Your task to perform on an android device: turn on data saver in the chrome app Image 0: 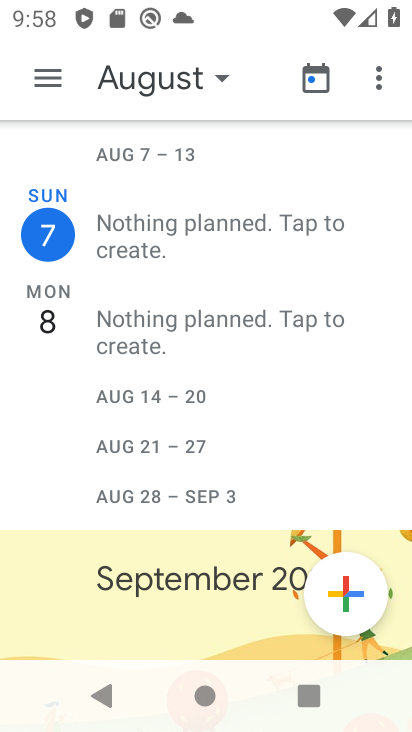
Step 0: press home button
Your task to perform on an android device: turn on data saver in the chrome app Image 1: 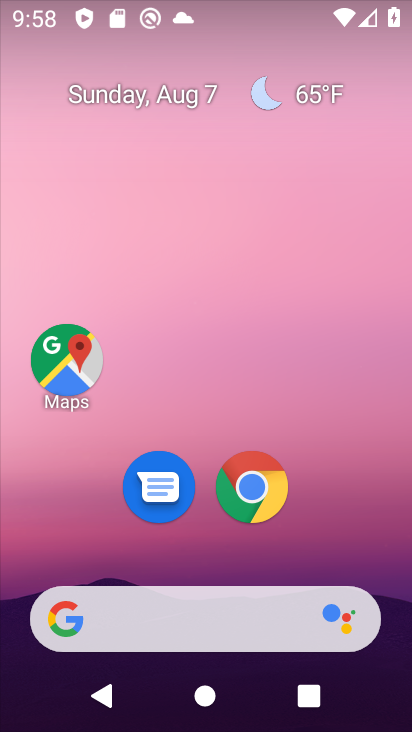
Step 1: click (238, 490)
Your task to perform on an android device: turn on data saver in the chrome app Image 2: 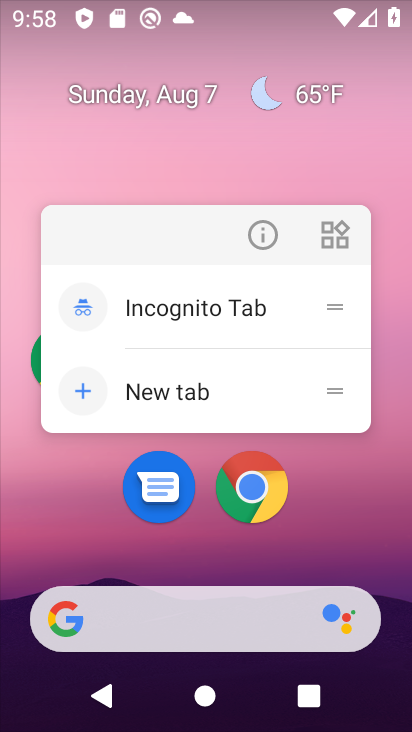
Step 2: click (263, 492)
Your task to perform on an android device: turn on data saver in the chrome app Image 3: 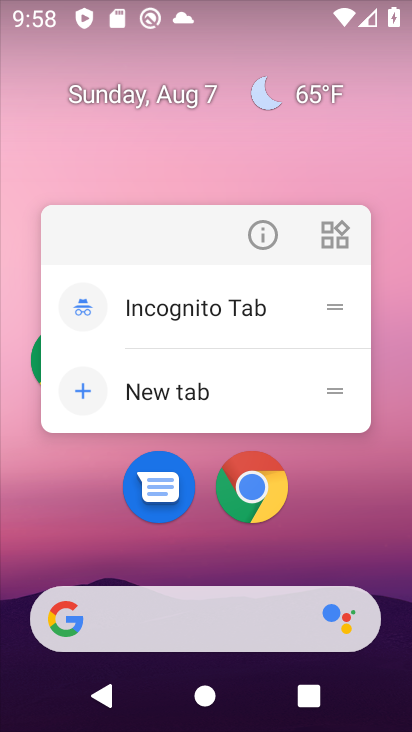
Step 3: click (262, 478)
Your task to perform on an android device: turn on data saver in the chrome app Image 4: 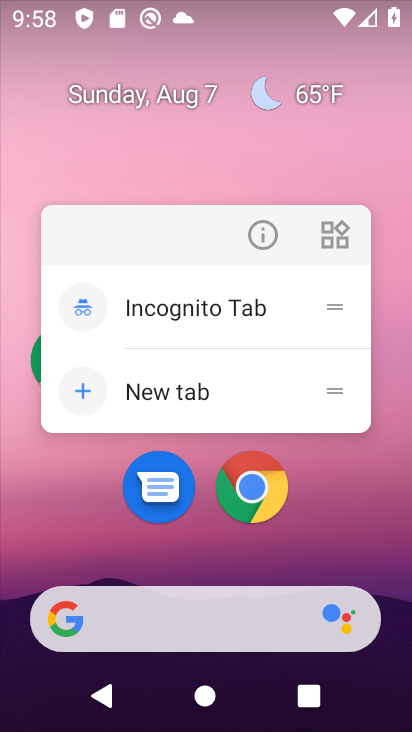
Step 4: click (264, 480)
Your task to perform on an android device: turn on data saver in the chrome app Image 5: 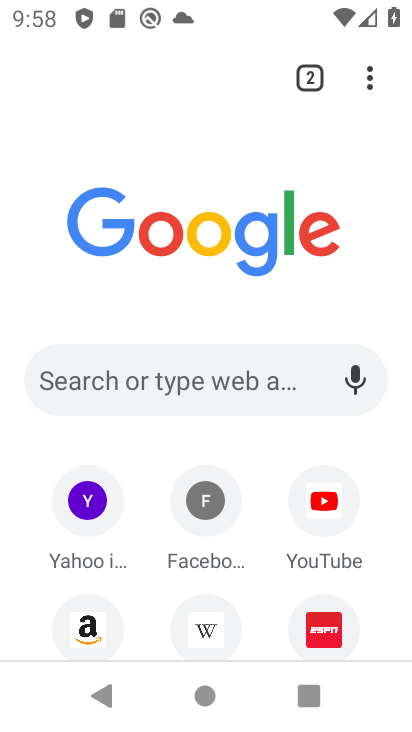
Step 5: click (367, 63)
Your task to perform on an android device: turn on data saver in the chrome app Image 6: 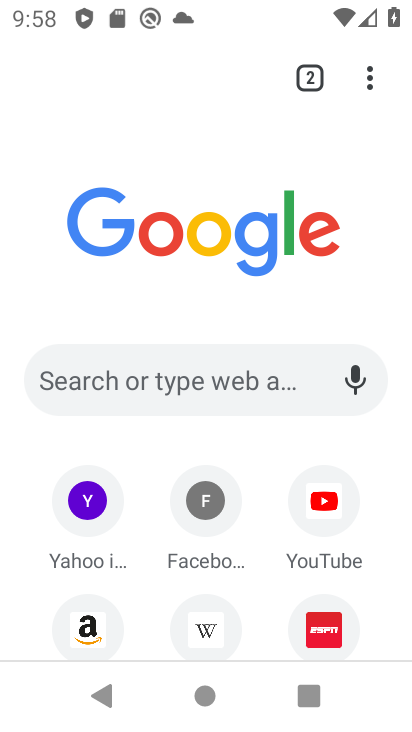
Step 6: click (367, 76)
Your task to perform on an android device: turn on data saver in the chrome app Image 7: 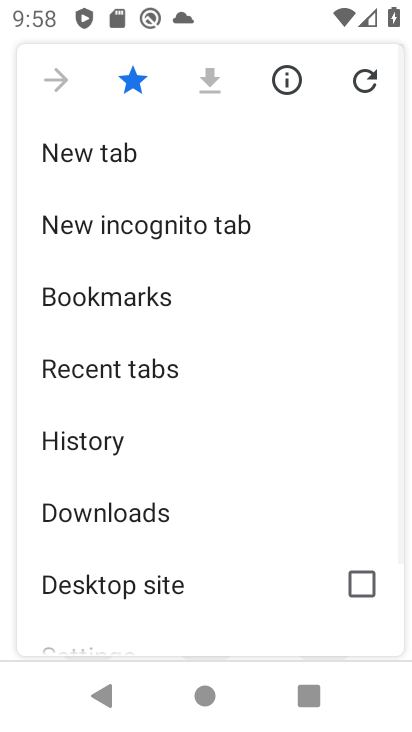
Step 7: drag from (228, 609) to (158, 134)
Your task to perform on an android device: turn on data saver in the chrome app Image 8: 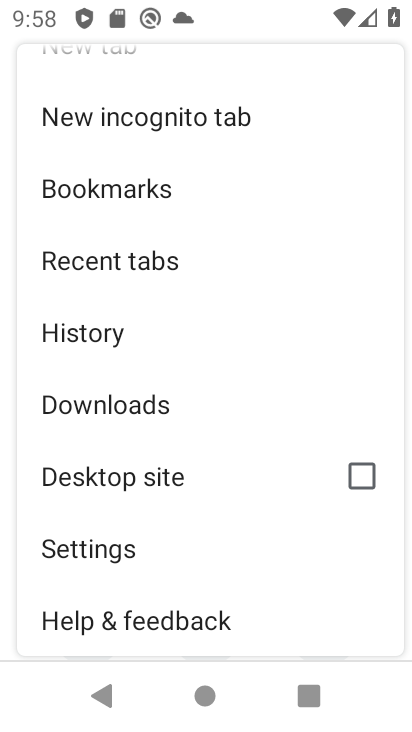
Step 8: click (108, 545)
Your task to perform on an android device: turn on data saver in the chrome app Image 9: 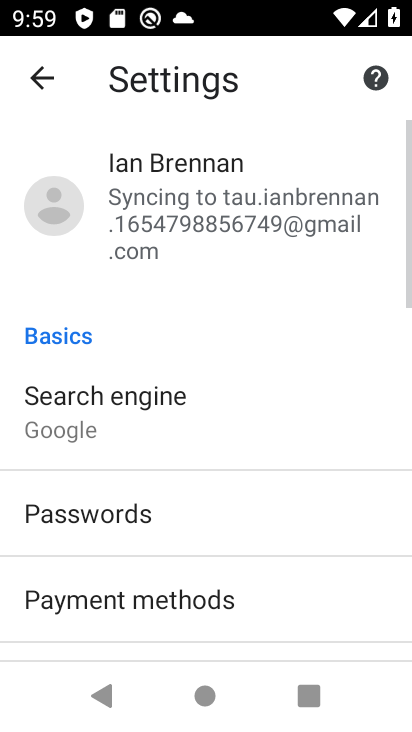
Step 9: drag from (254, 630) to (187, 180)
Your task to perform on an android device: turn on data saver in the chrome app Image 10: 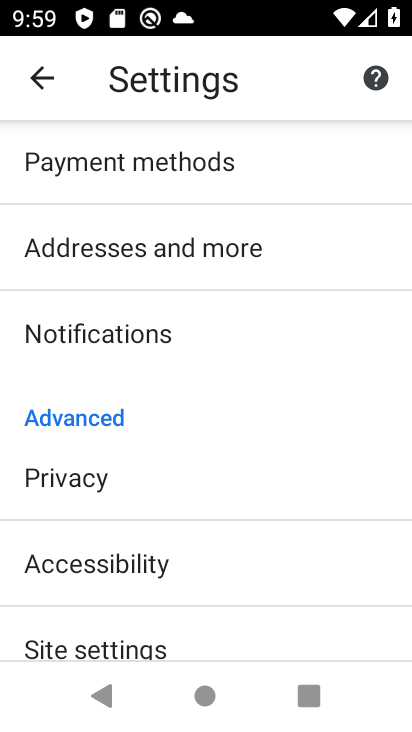
Step 10: drag from (295, 628) to (242, 297)
Your task to perform on an android device: turn on data saver in the chrome app Image 11: 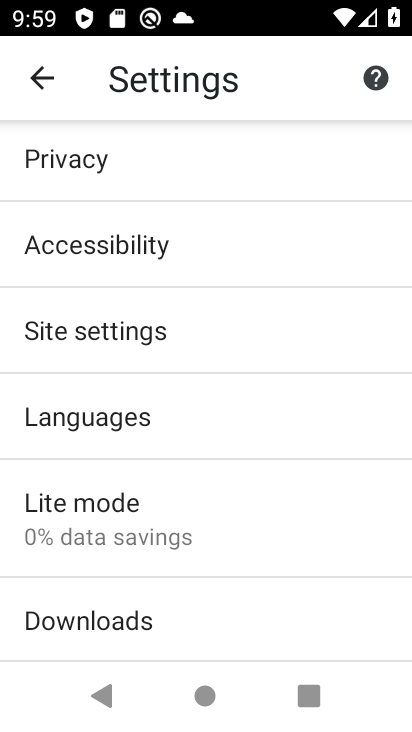
Step 11: click (74, 510)
Your task to perform on an android device: turn on data saver in the chrome app Image 12: 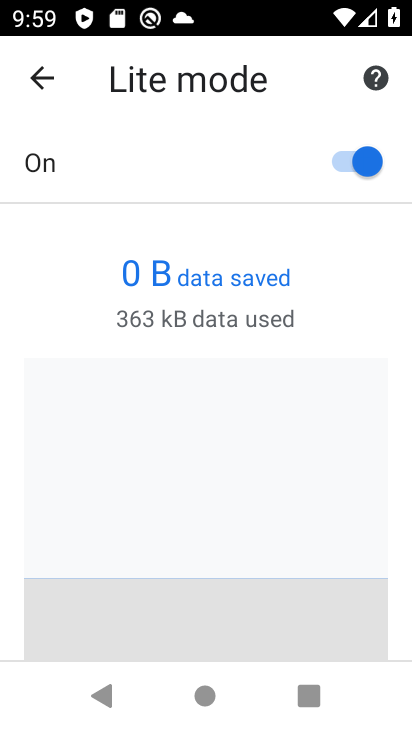
Step 12: task complete